Your task to perform on an android device: turn off location history Image 0: 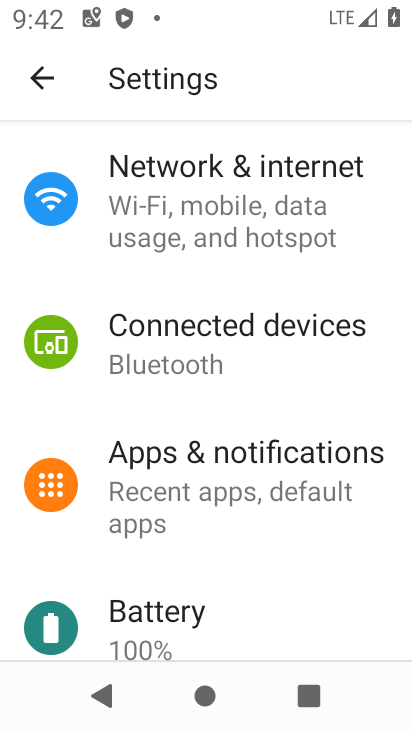
Step 0: press home button
Your task to perform on an android device: turn off location history Image 1: 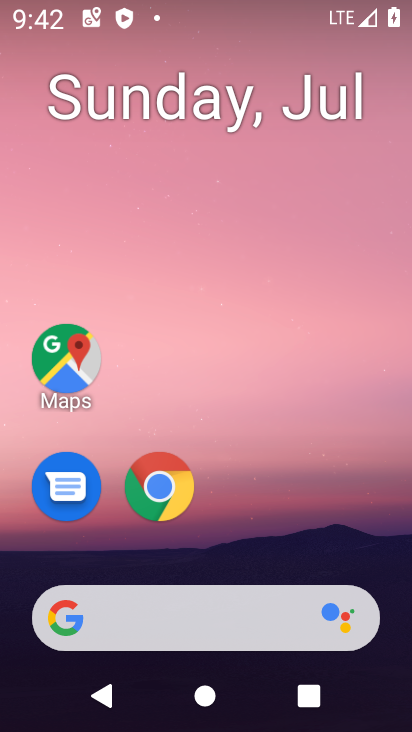
Step 1: drag from (382, 534) to (368, 101)
Your task to perform on an android device: turn off location history Image 2: 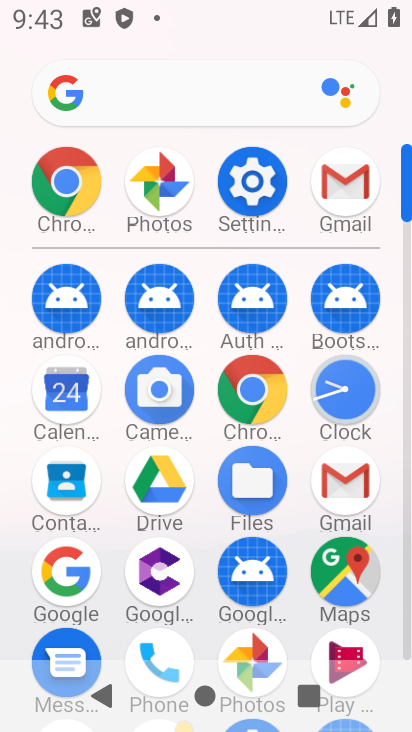
Step 2: click (252, 187)
Your task to perform on an android device: turn off location history Image 3: 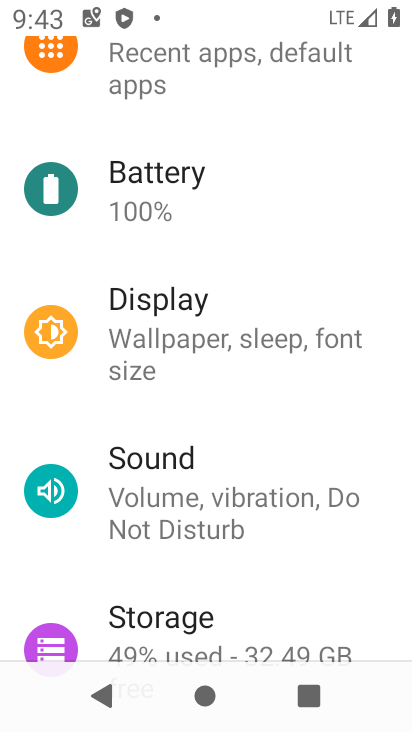
Step 3: drag from (350, 173) to (351, 303)
Your task to perform on an android device: turn off location history Image 4: 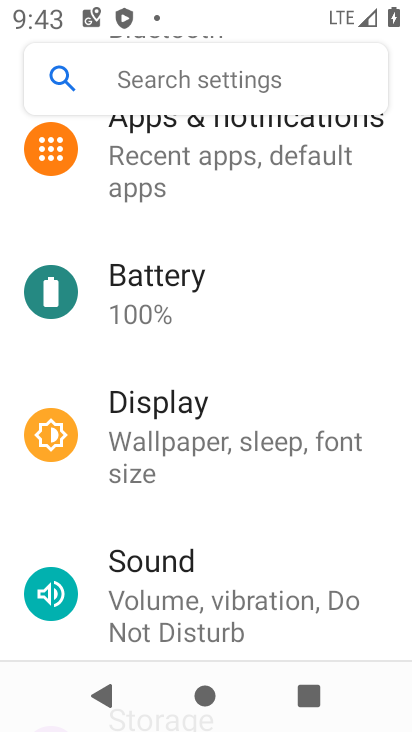
Step 4: drag from (375, 153) to (365, 310)
Your task to perform on an android device: turn off location history Image 5: 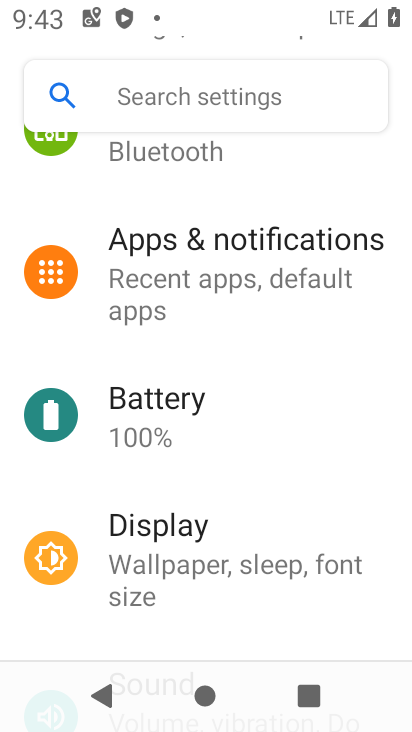
Step 5: drag from (371, 174) to (368, 419)
Your task to perform on an android device: turn off location history Image 6: 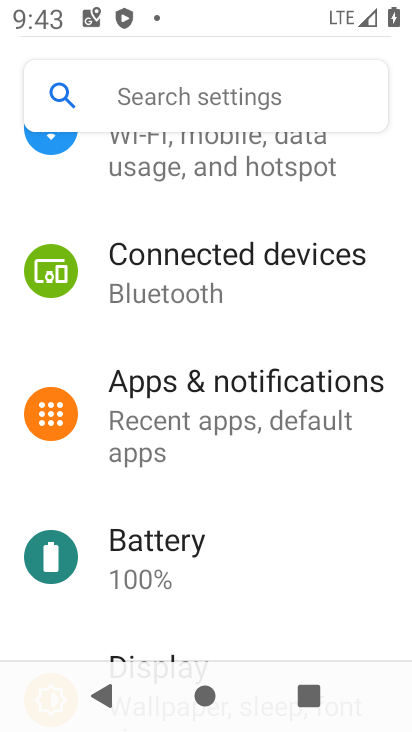
Step 6: drag from (378, 178) to (376, 419)
Your task to perform on an android device: turn off location history Image 7: 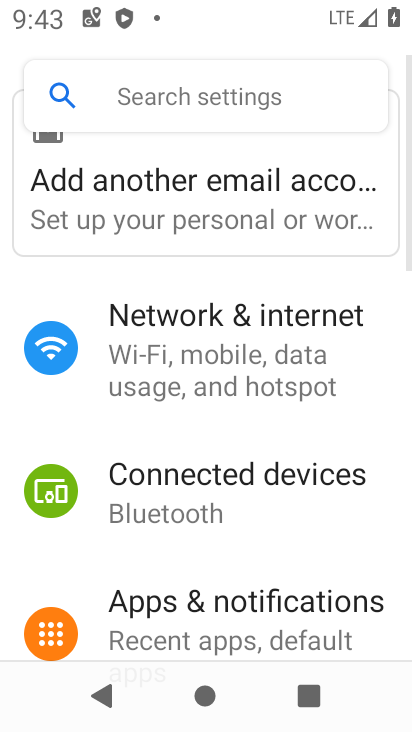
Step 7: drag from (366, 492) to (380, 343)
Your task to perform on an android device: turn off location history Image 8: 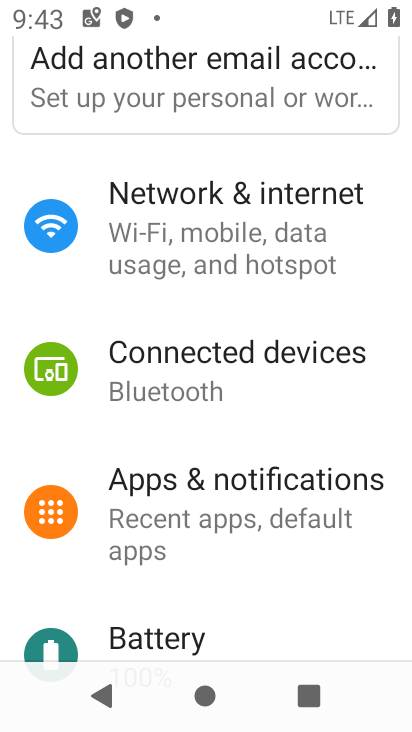
Step 8: drag from (369, 458) to (374, 324)
Your task to perform on an android device: turn off location history Image 9: 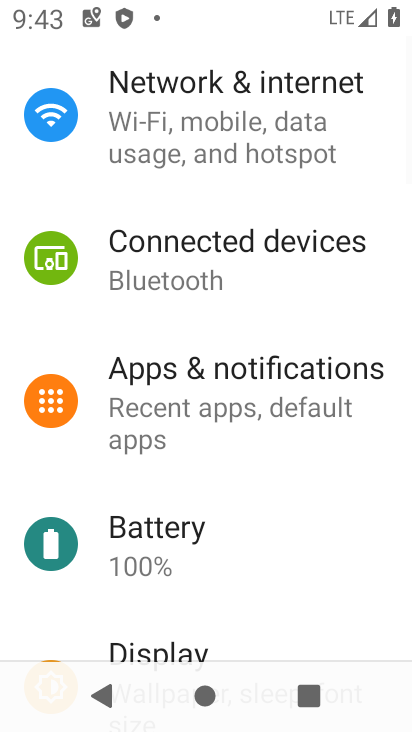
Step 9: drag from (358, 508) to (365, 363)
Your task to perform on an android device: turn off location history Image 10: 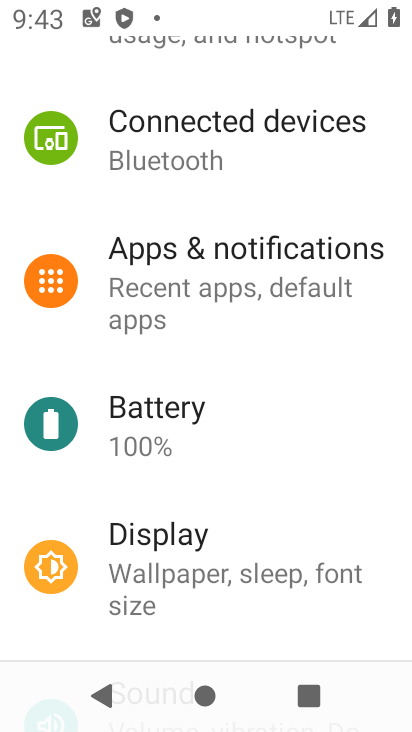
Step 10: drag from (340, 499) to (341, 375)
Your task to perform on an android device: turn off location history Image 11: 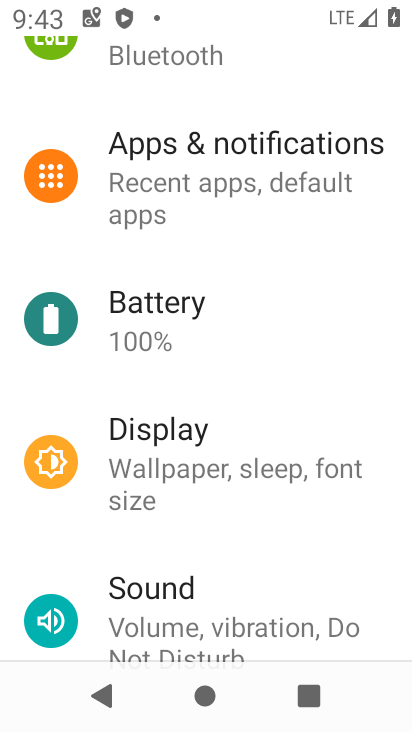
Step 11: drag from (320, 554) to (326, 378)
Your task to perform on an android device: turn off location history Image 12: 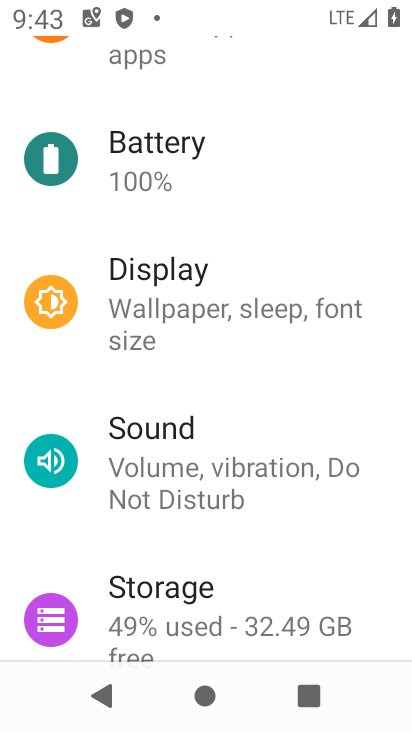
Step 12: drag from (336, 561) to (350, 382)
Your task to perform on an android device: turn off location history Image 13: 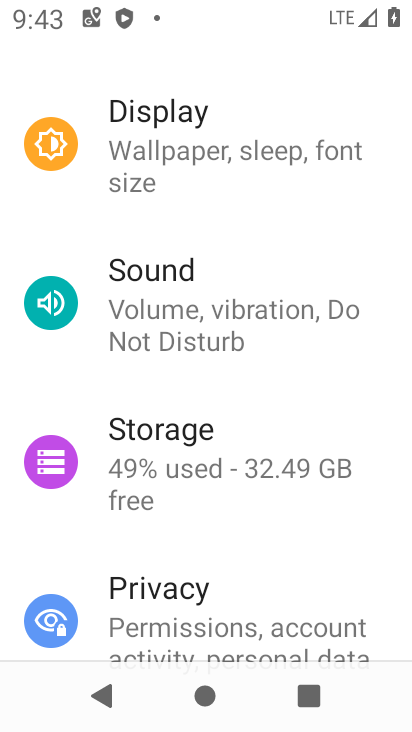
Step 13: drag from (349, 458) to (358, 335)
Your task to perform on an android device: turn off location history Image 14: 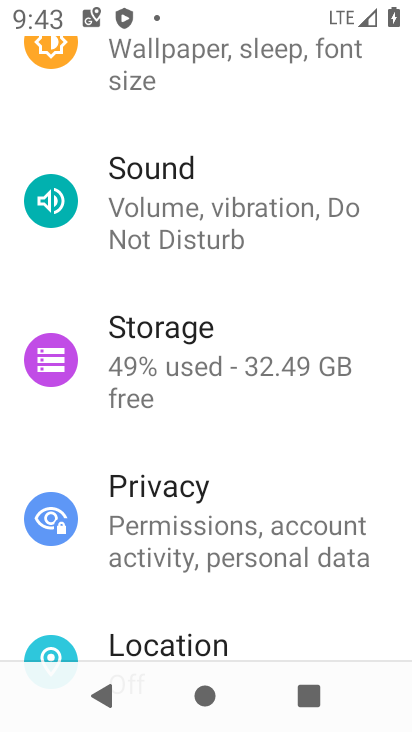
Step 14: drag from (336, 617) to (338, 405)
Your task to perform on an android device: turn off location history Image 15: 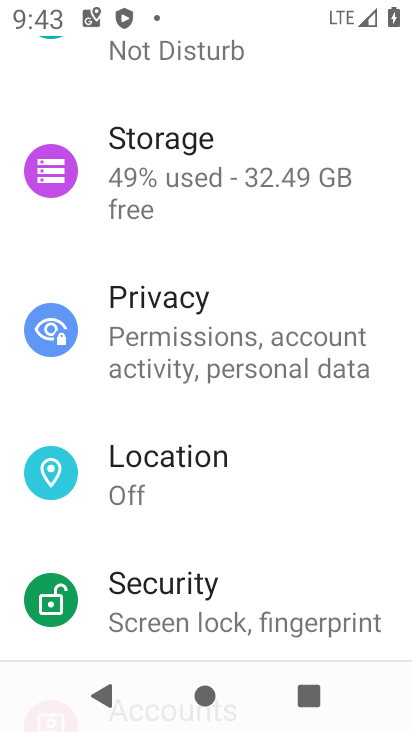
Step 15: click (294, 482)
Your task to perform on an android device: turn off location history Image 16: 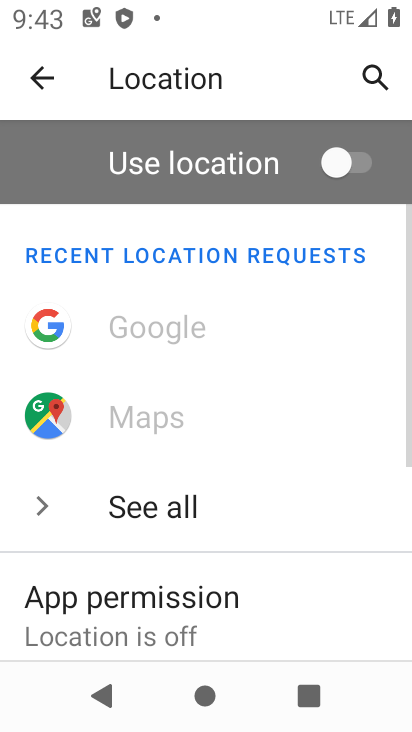
Step 16: drag from (309, 561) to (317, 419)
Your task to perform on an android device: turn off location history Image 17: 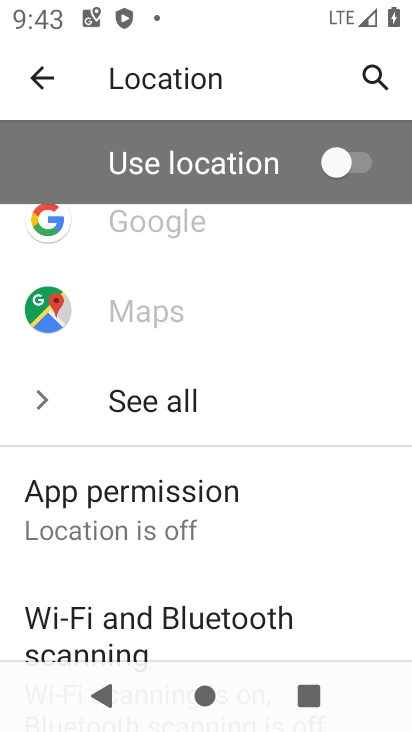
Step 17: drag from (314, 534) to (312, 359)
Your task to perform on an android device: turn off location history Image 18: 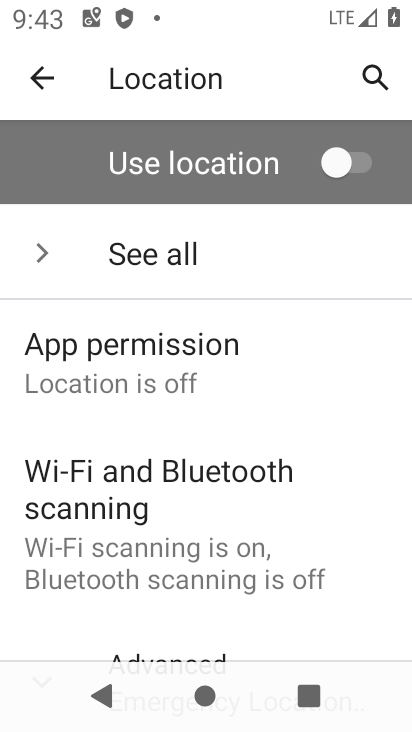
Step 18: drag from (341, 589) to (349, 421)
Your task to perform on an android device: turn off location history Image 19: 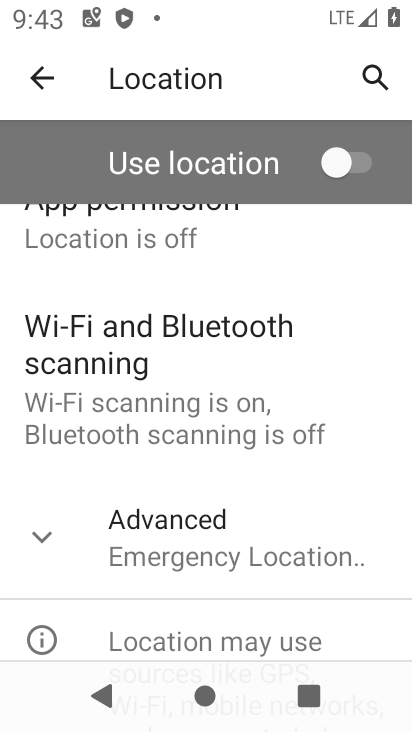
Step 19: drag from (333, 610) to (356, 398)
Your task to perform on an android device: turn off location history Image 20: 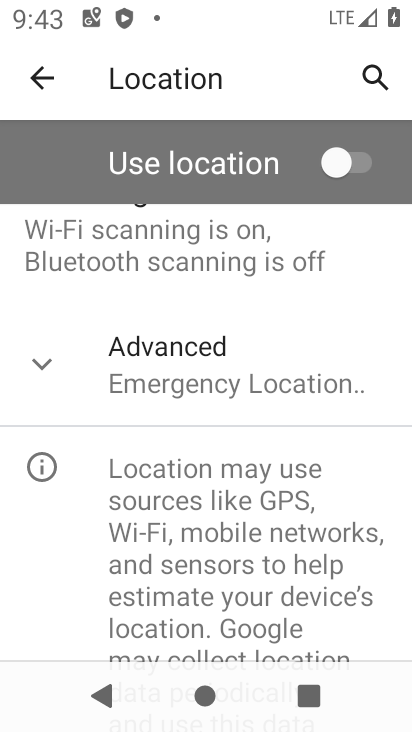
Step 20: click (323, 369)
Your task to perform on an android device: turn off location history Image 21: 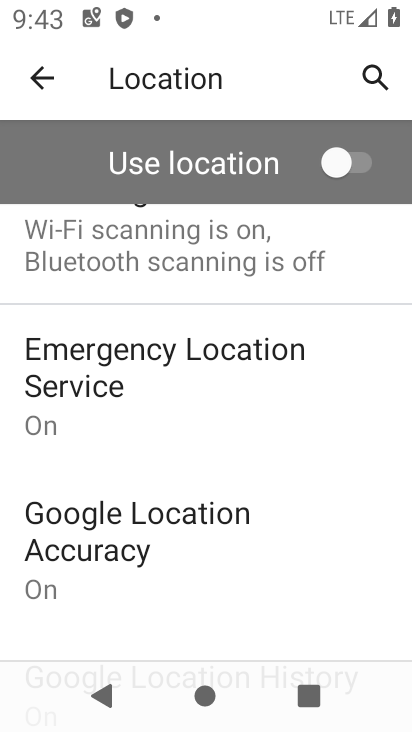
Step 21: drag from (322, 536) to (317, 388)
Your task to perform on an android device: turn off location history Image 22: 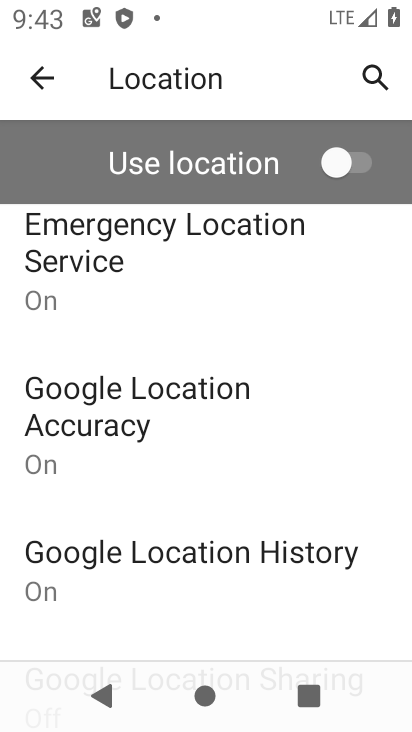
Step 22: drag from (315, 550) to (334, 357)
Your task to perform on an android device: turn off location history Image 23: 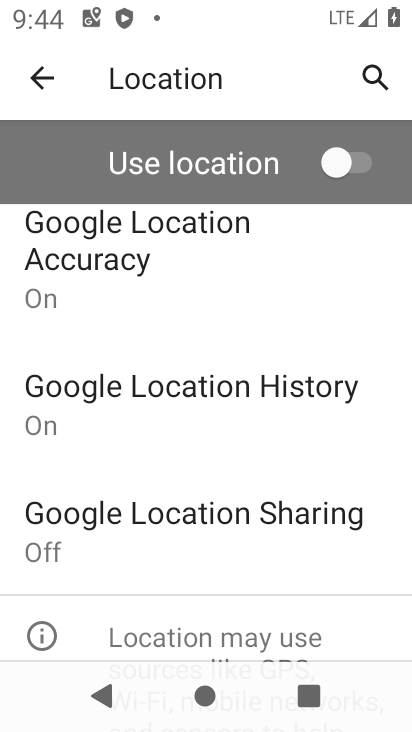
Step 23: click (327, 383)
Your task to perform on an android device: turn off location history Image 24: 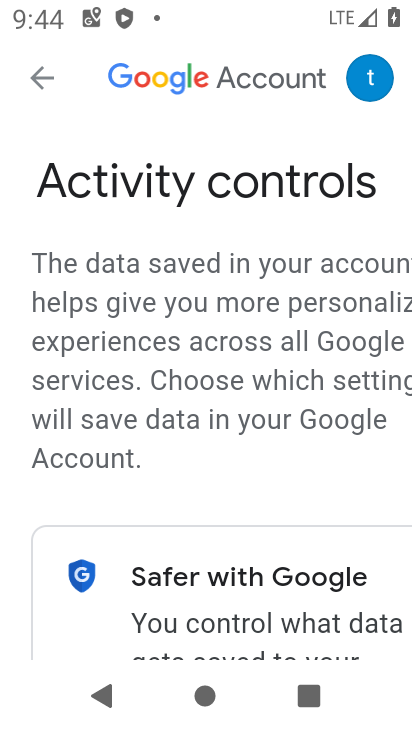
Step 24: drag from (321, 508) to (321, 393)
Your task to perform on an android device: turn off location history Image 25: 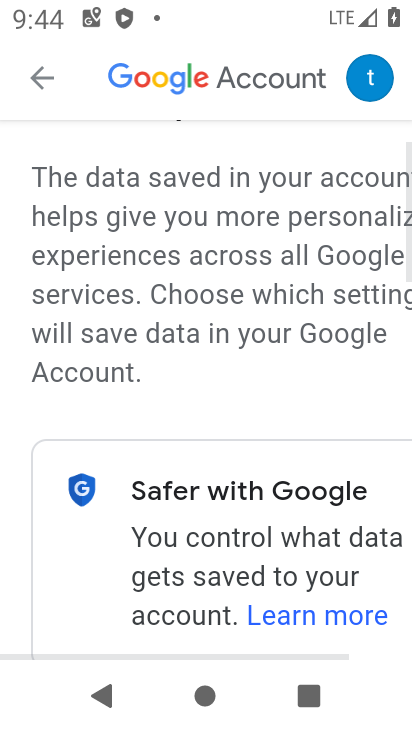
Step 25: drag from (286, 540) to (290, 350)
Your task to perform on an android device: turn off location history Image 26: 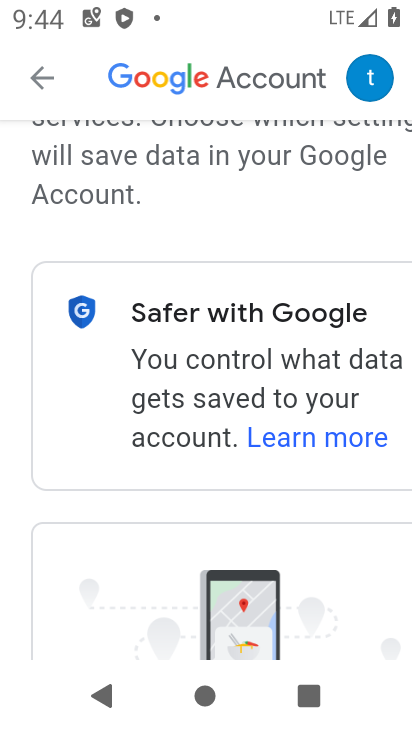
Step 26: drag from (312, 601) to (303, 379)
Your task to perform on an android device: turn off location history Image 27: 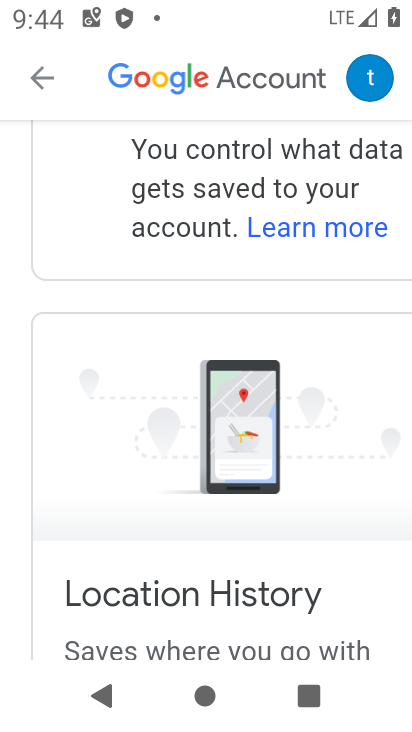
Step 27: drag from (265, 606) to (274, 383)
Your task to perform on an android device: turn off location history Image 28: 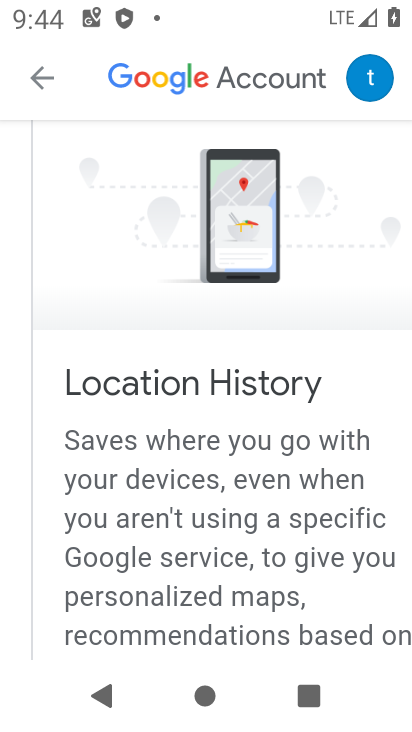
Step 28: drag from (260, 592) to (253, 361)
Your task to perform on an android device: turn off location history Image 29: 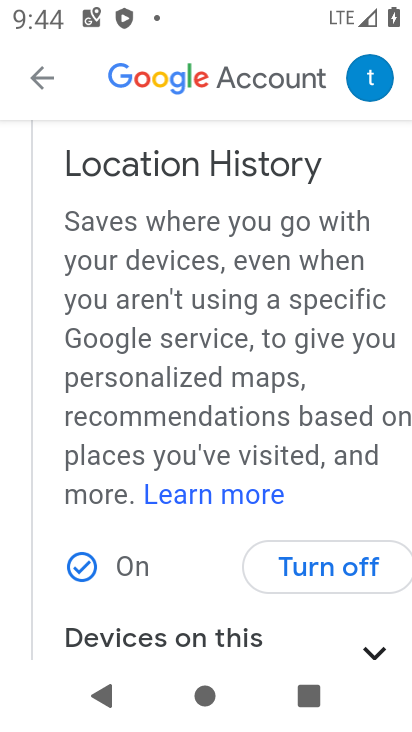
Step 29: click (308, 568)
Your task to perform on an android device: turn off location history Image 30: 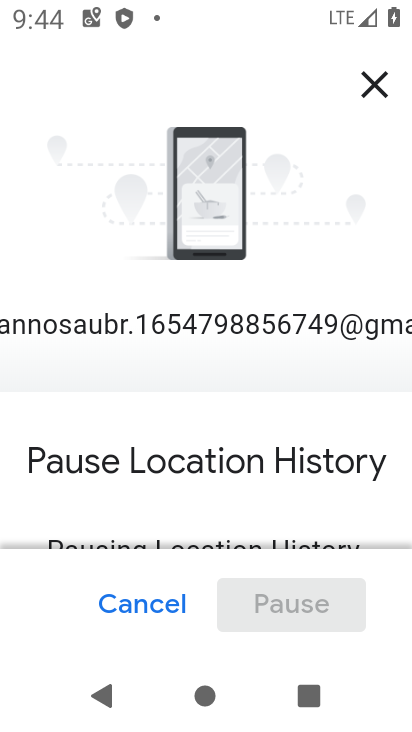
Step 30: drag from (258, 489) to (270, 278)
Your task to perform on an android device: turn off location history Image 31: 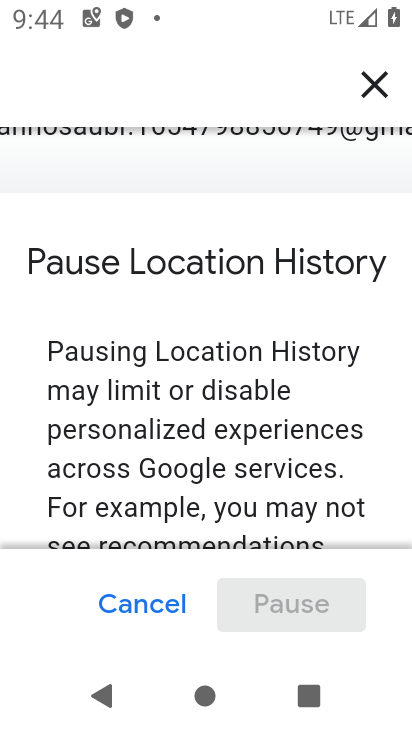
Step 31: drag from (269, 439) to (265, 263)
Your task to perform on an android device: turn off location history Image 32: 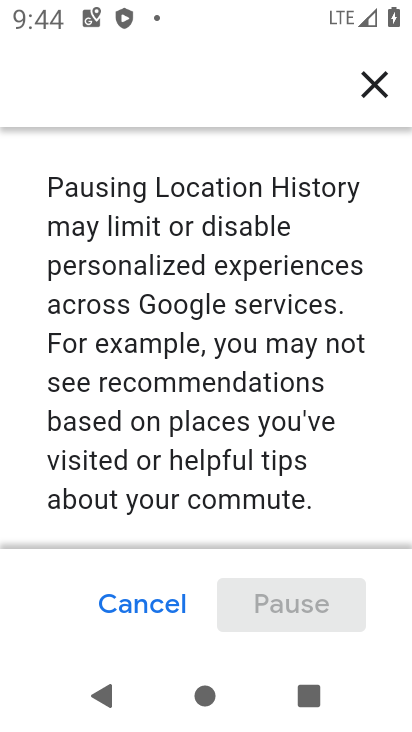
Step 32: drag from (265, 439) to (266, 254)
Your task to perform on an android device: turn off location history Image 33: 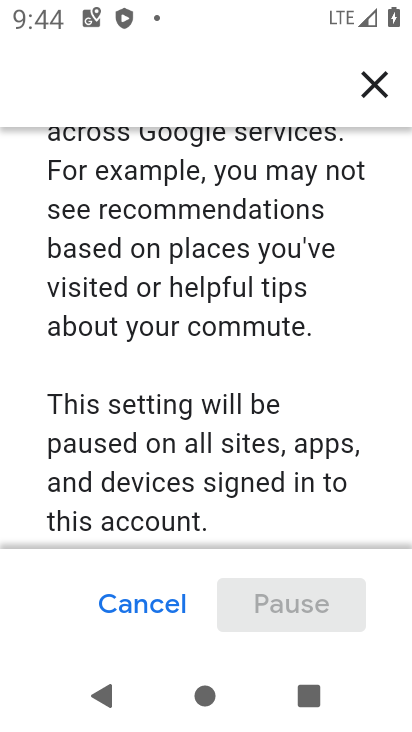
Step 33: drag from (246, 458) to (246, 285)
Your task to perform on an android device: turn off location history Image 34: 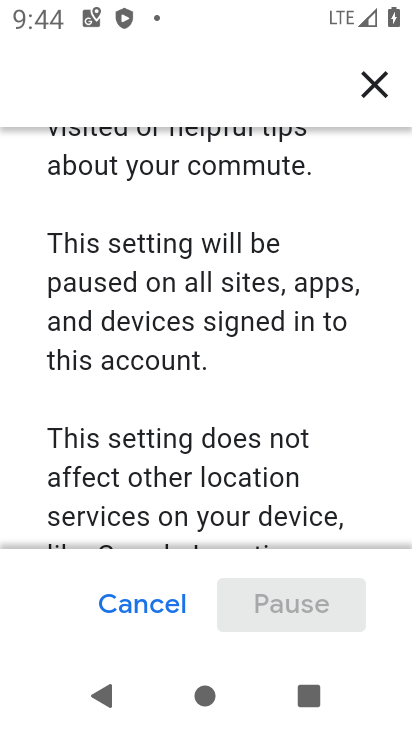
Step 34: drag from (247, 466) to (250, 309)
Your task to perform on an android device: turn off location history Image 35: 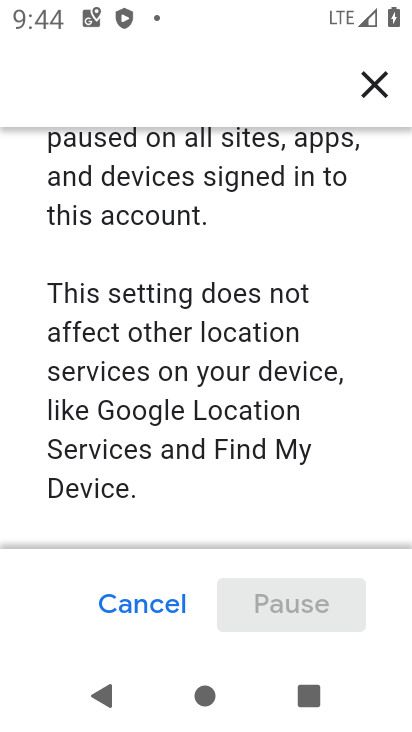
Step 35: drag from (243, 373) to (247, 268)
Your task to perform on an android device: turn off location history Image 36: 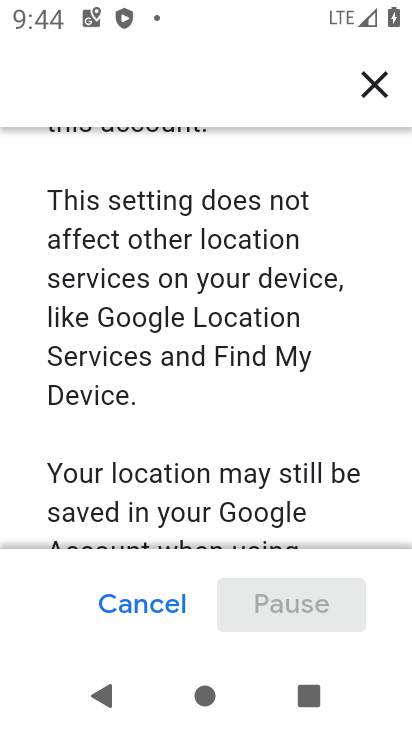
Step 36: drag from (243, 493) to (232, 268)
Your task to perform on an android device: turn off location history Image 37: 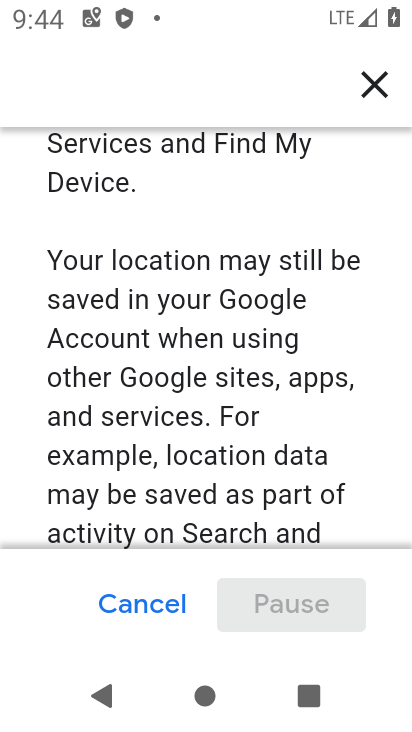
Step 37: drag from (235, 483) to (231, 287)
Your task to perform on an android device: turn off location history Image 38: 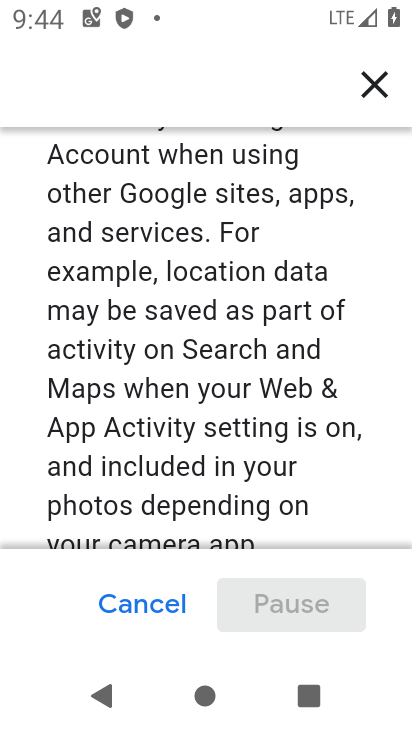
Step 38: drag from (236, 495) to (240, 325)
Your task to perform on an android device: turn off location history Image 39: 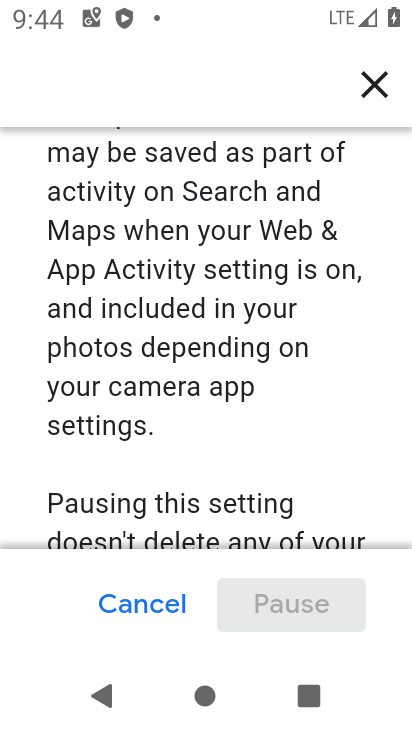
Step 39: drag from (239, 515) to (239, 353)
Your task to perform on an android device: turn off location history Image 40: 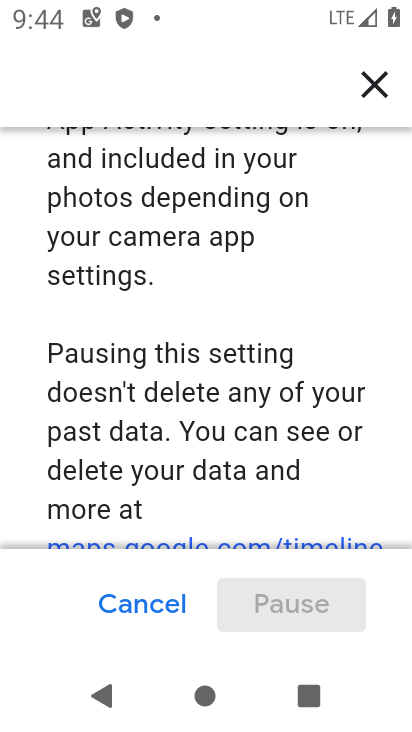
Step 40: drag from (351, 487) to (351, 266)
Your task to perform on an android device: turn off location history Image 41: 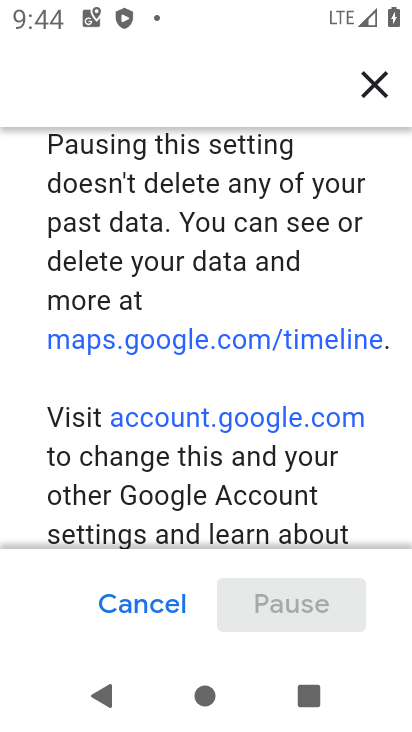
Step 41: drag from (341, 482) to (324, 254)
Your task to perform on an android device: turn off location history Image 42: 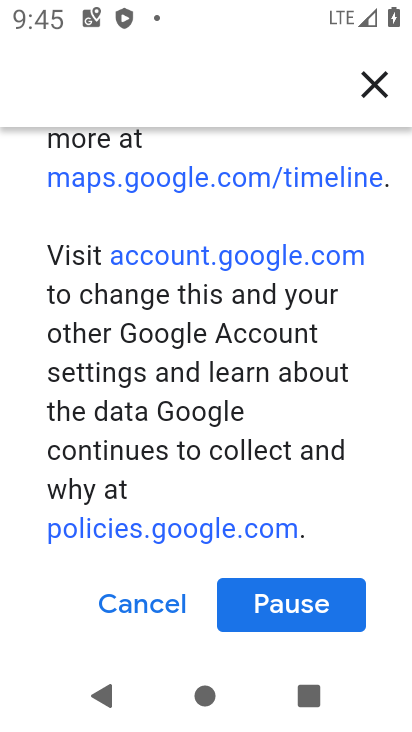
Step 42: click (305, 606)
Your task to perform on an android device: turn off location history Image 43: 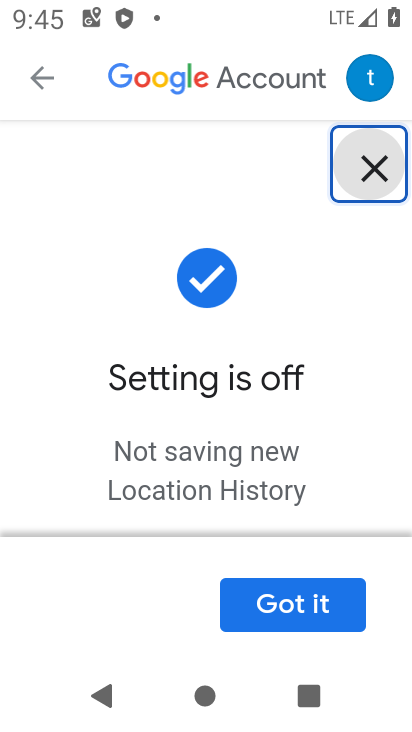
Step 43: task complete